Your task to perform on an android device: turn on improve location accuracy Image 0: 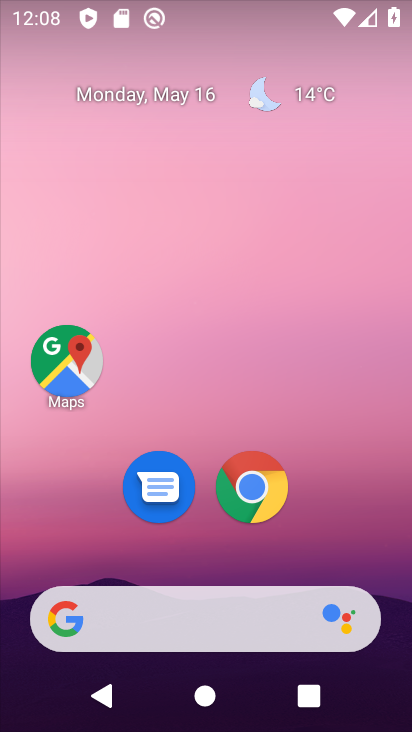
Step 0: drag from (178, 618) to (318, 216)
Your task to perform on an android device: turn on improve location accuracy Image 1: 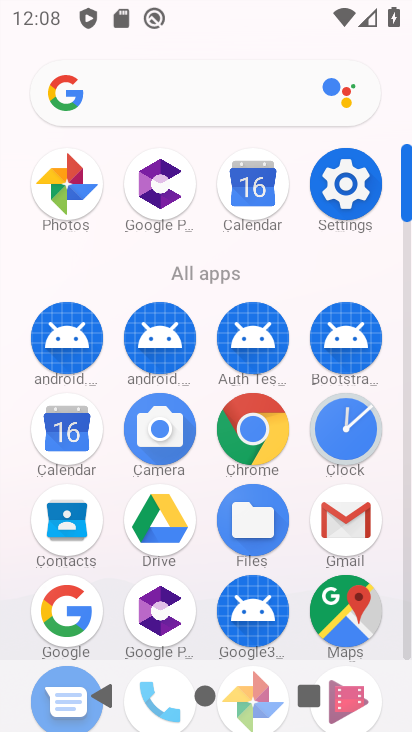
Step 1: click (348, 190)
Your task to perform on an android device: turn on improve location accuracy Image 2: 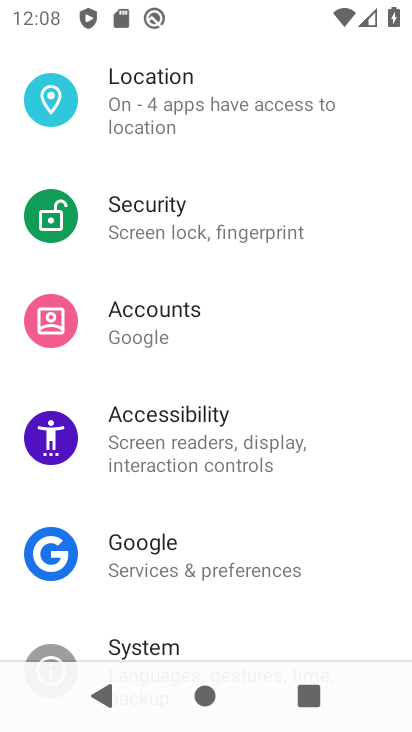
Step 2: click (174, 98)
Your task to perform on an android device: turn on improve location accuracy Image 3: 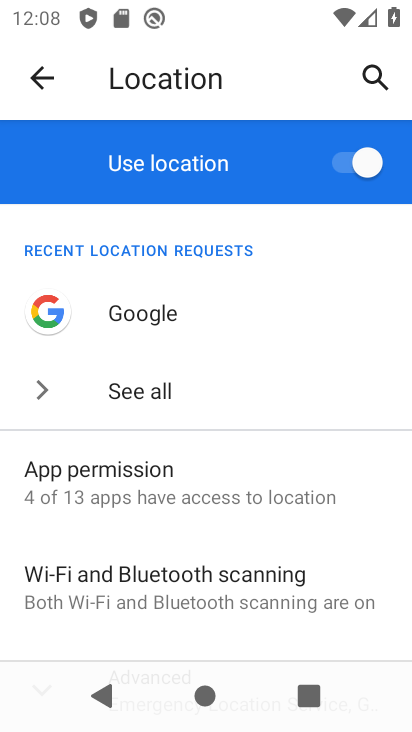
Step 3: drag from (147, 553) to (318, 230)
Your task to perform on an android device: turn on improve location accuracy Image 4: 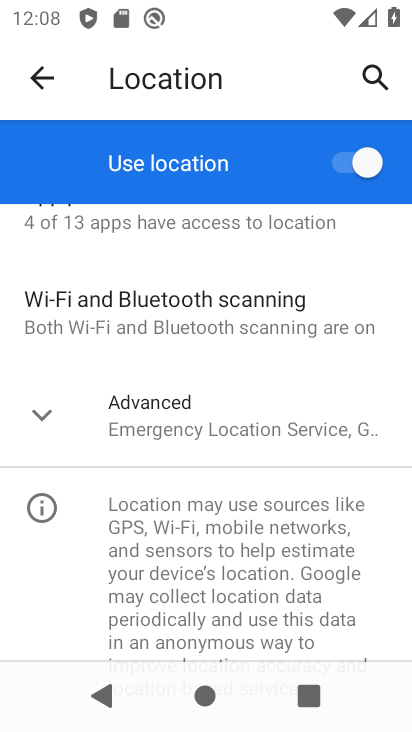
Step 4: click (192, 398)
Your task to perform on an android device: turn on improve location accuracy Image 5: 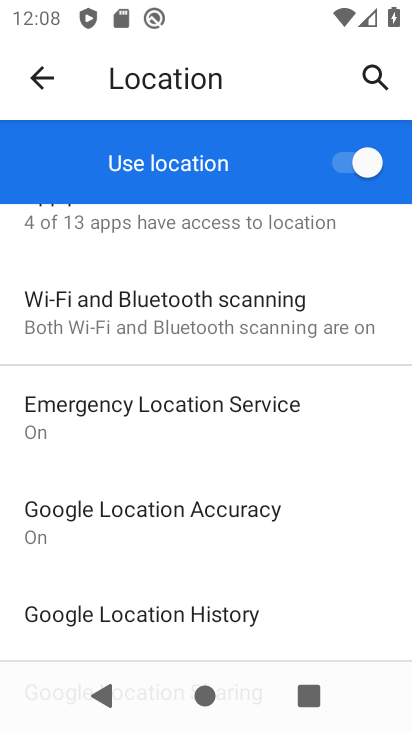
Step 5: click (173, 507)
Your task to perform on an android device: turn on improve location accuracy Image 6: 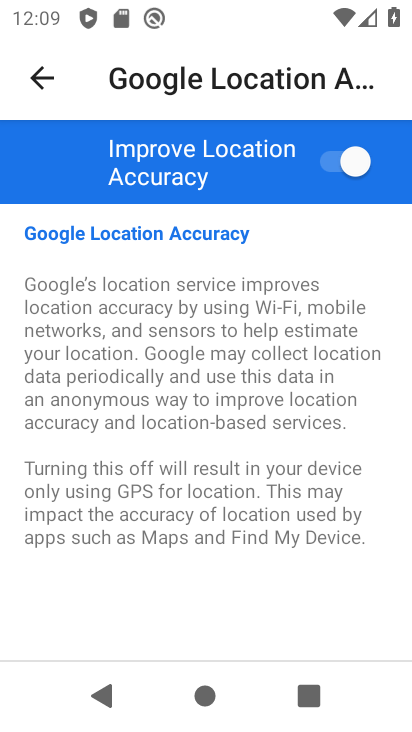
Step 6: task complete